Your task to perform on an android device: What's on my calendar tomorrow? Image 0: 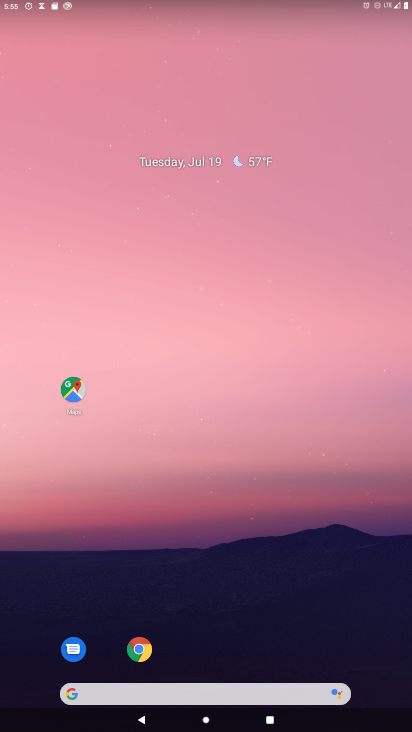
Step 0: drag from (202, 405) to (195, 141)
Your task to perform on an android device: What's on my calendar tomorrow? Image 1: 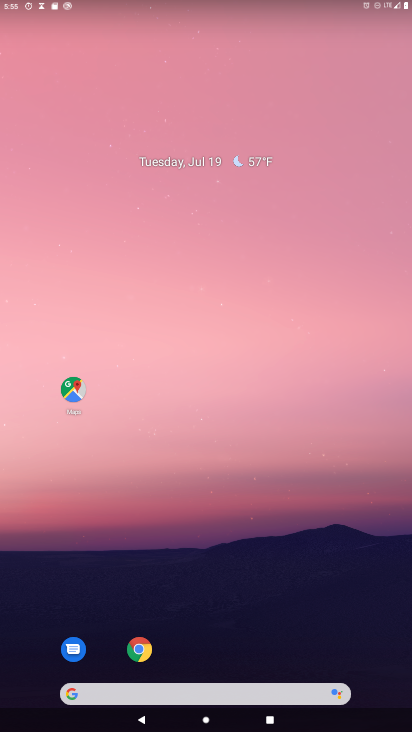
Step 1: drag from (206, 579) to (189, 198)
Your task to perform on an android device: What's on my calendar tomorrow? Image 2: 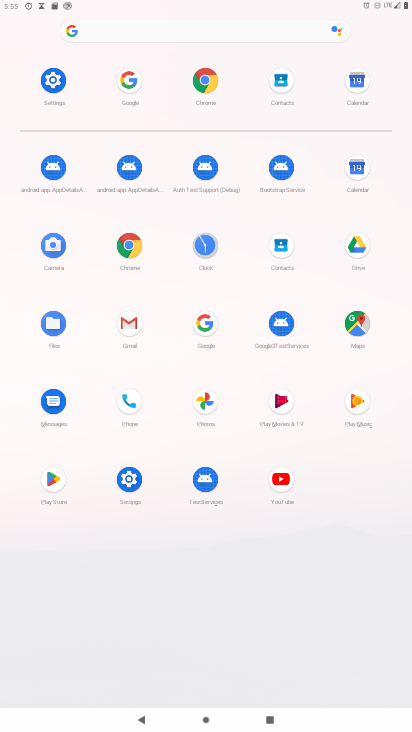
Step 2: click (355, 184)
Your task to perform on an android device: What's on my calendar tomorrow? Image 3: 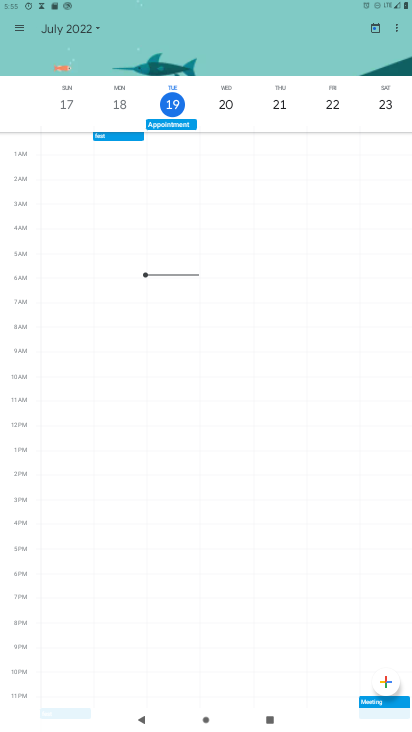
Step 3: click (228, 107)
Your task to perform on an android device: What's on my calendar tomorrow? Image 4: 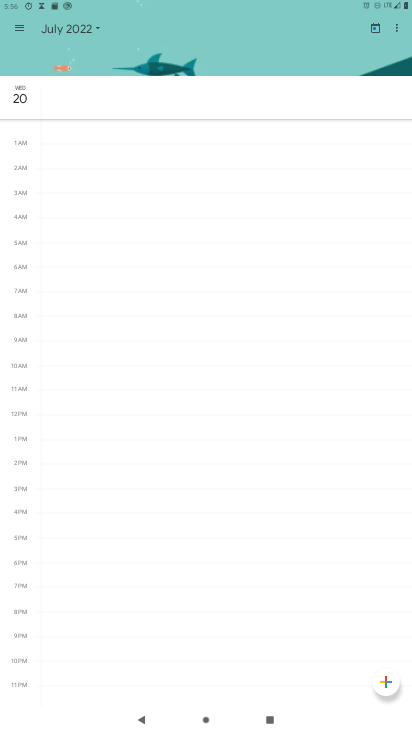
Step 4: task complete